Your task to perform on an android device: open app "Mercado Libre" (install if not already installed) Image 0: 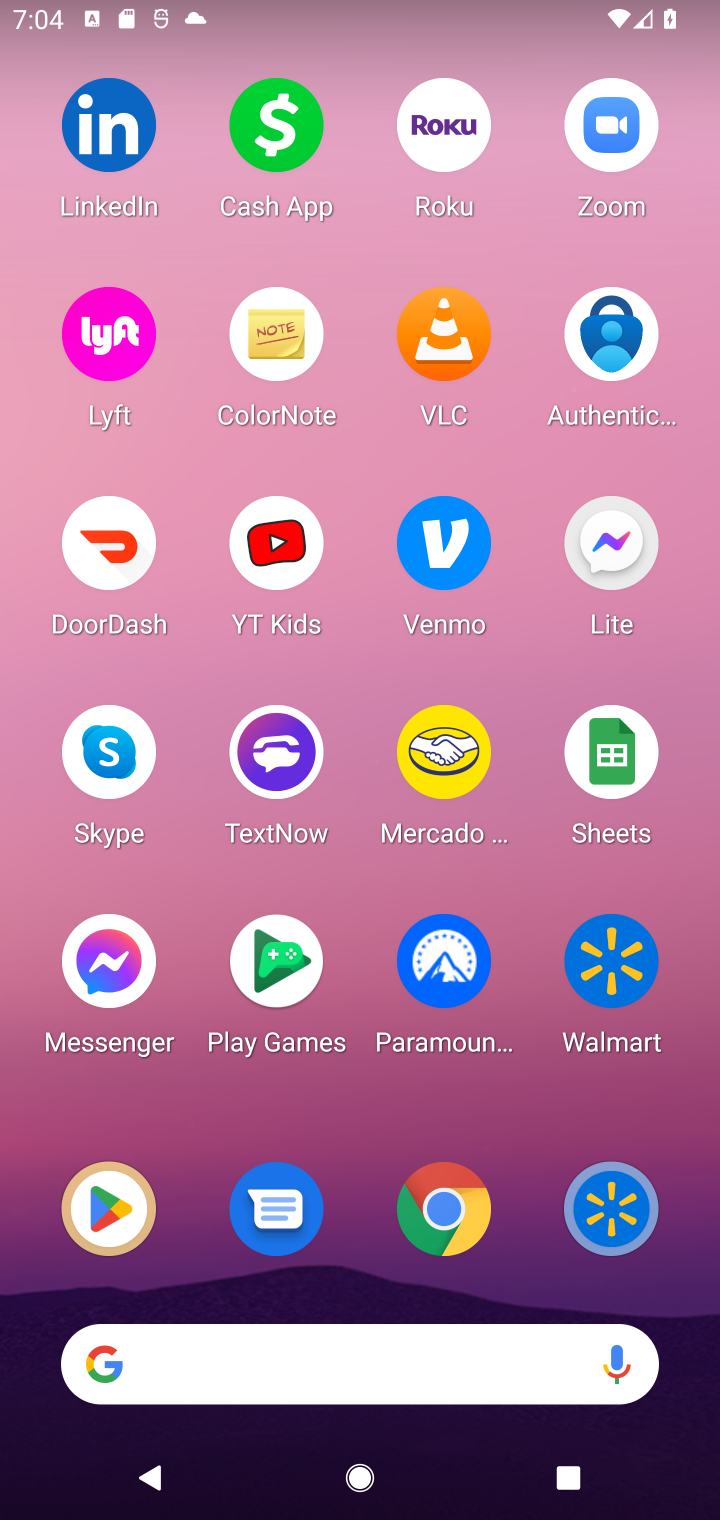
Step 0: click (110, 1199)
Your task to perform on an android device: open app "Mercado Libre" (install if not already installed) Image 1: 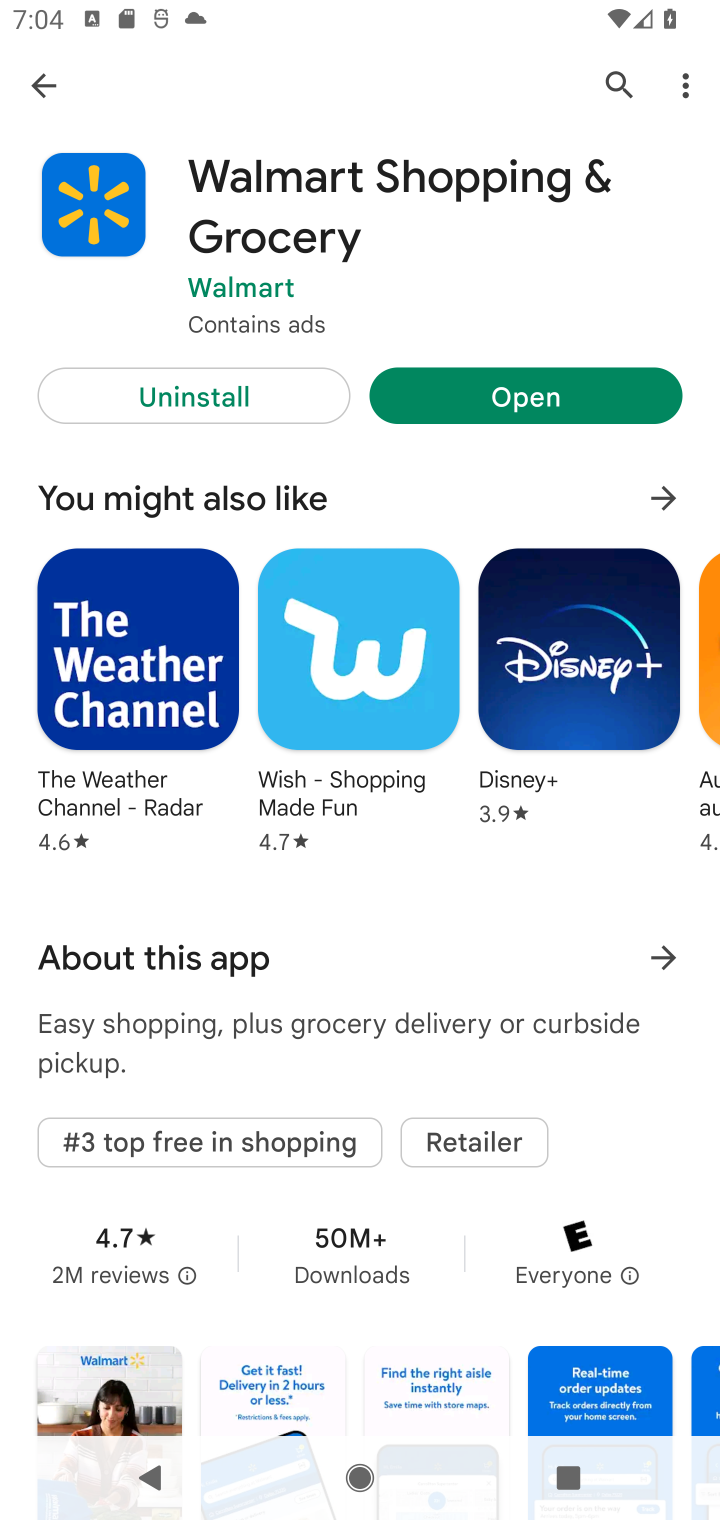
Step 1: click (630, 86)
Your task to perform on an android device: open app "Mercado Libre" (install if not already installed) Image 2: 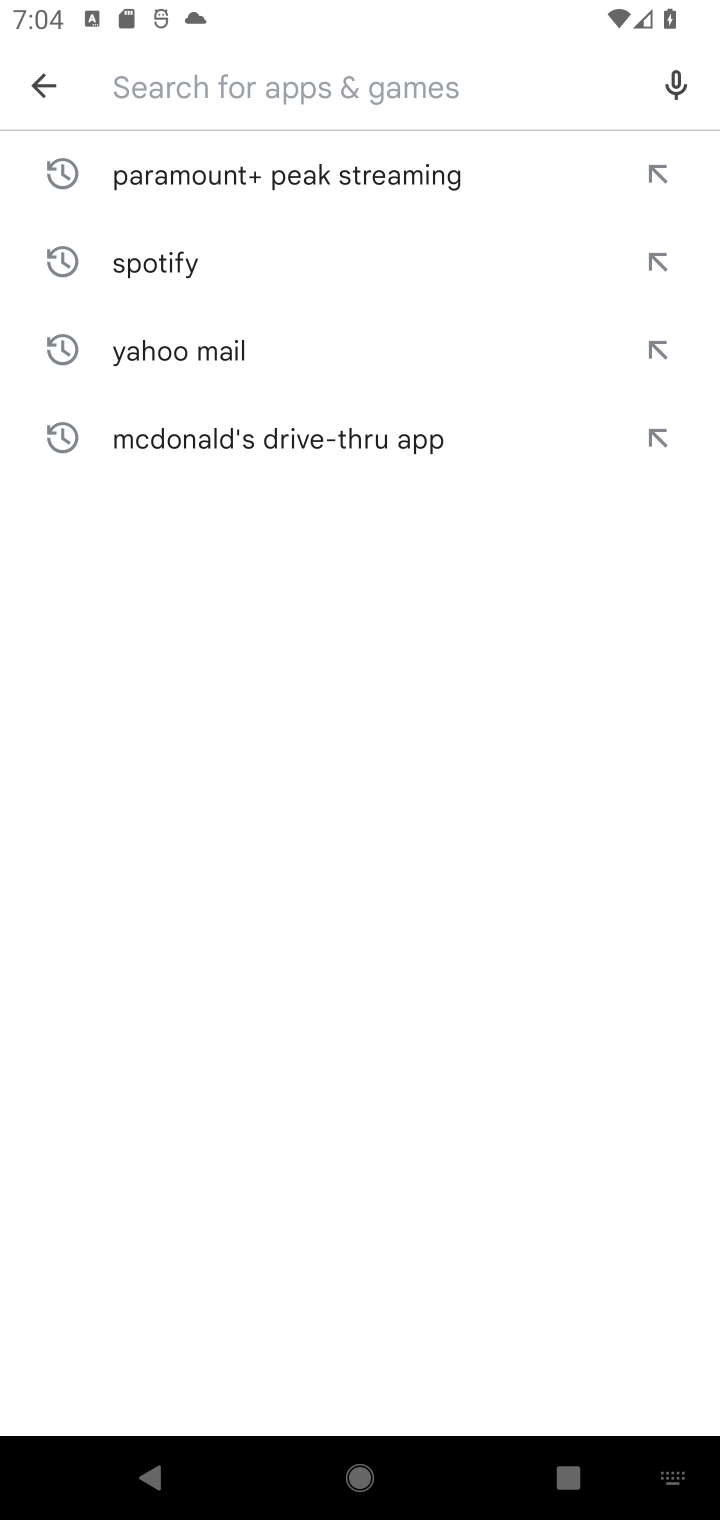
Step 2: type "Mercado Libre"
Your task to perform on an android device: open app "Mercado Libre" (install if not already installed) Image 3: 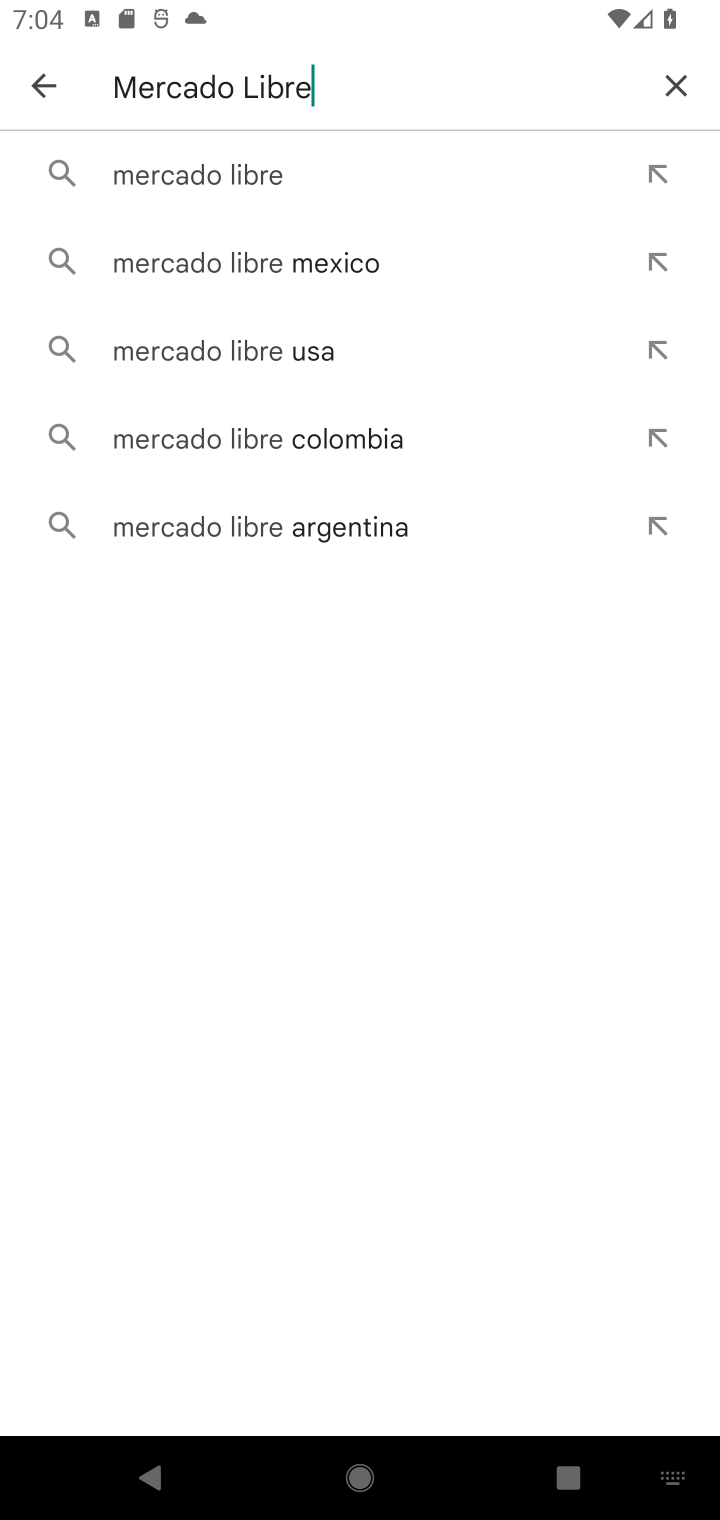
Step 3: click (172, 192)
Your task to perform on an android device: open app "Mercado Libre" (install if not already installed) Image 4: 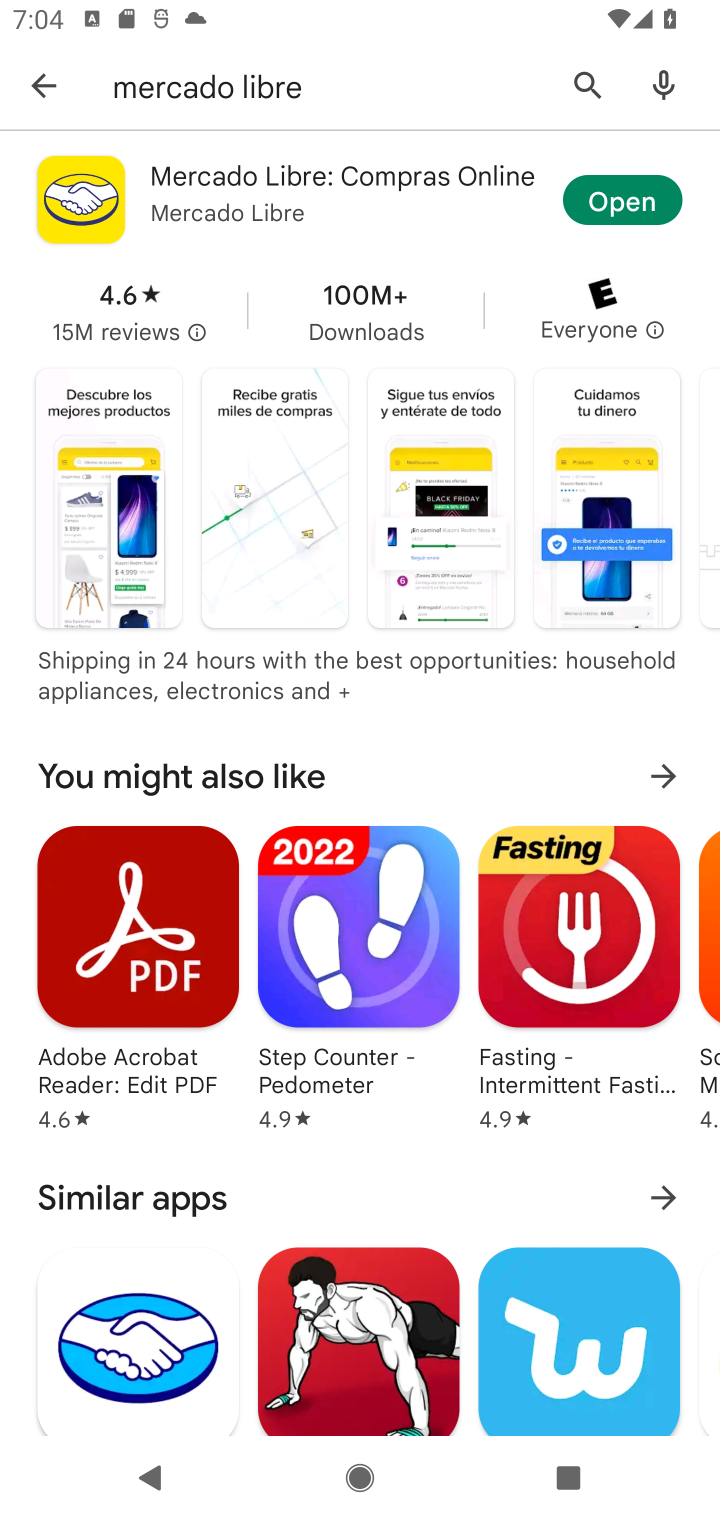
Step 4: click (649, 196)
Your task to perform on an android device: open app "Mercado Libre" (install if not already installed) Image 5: 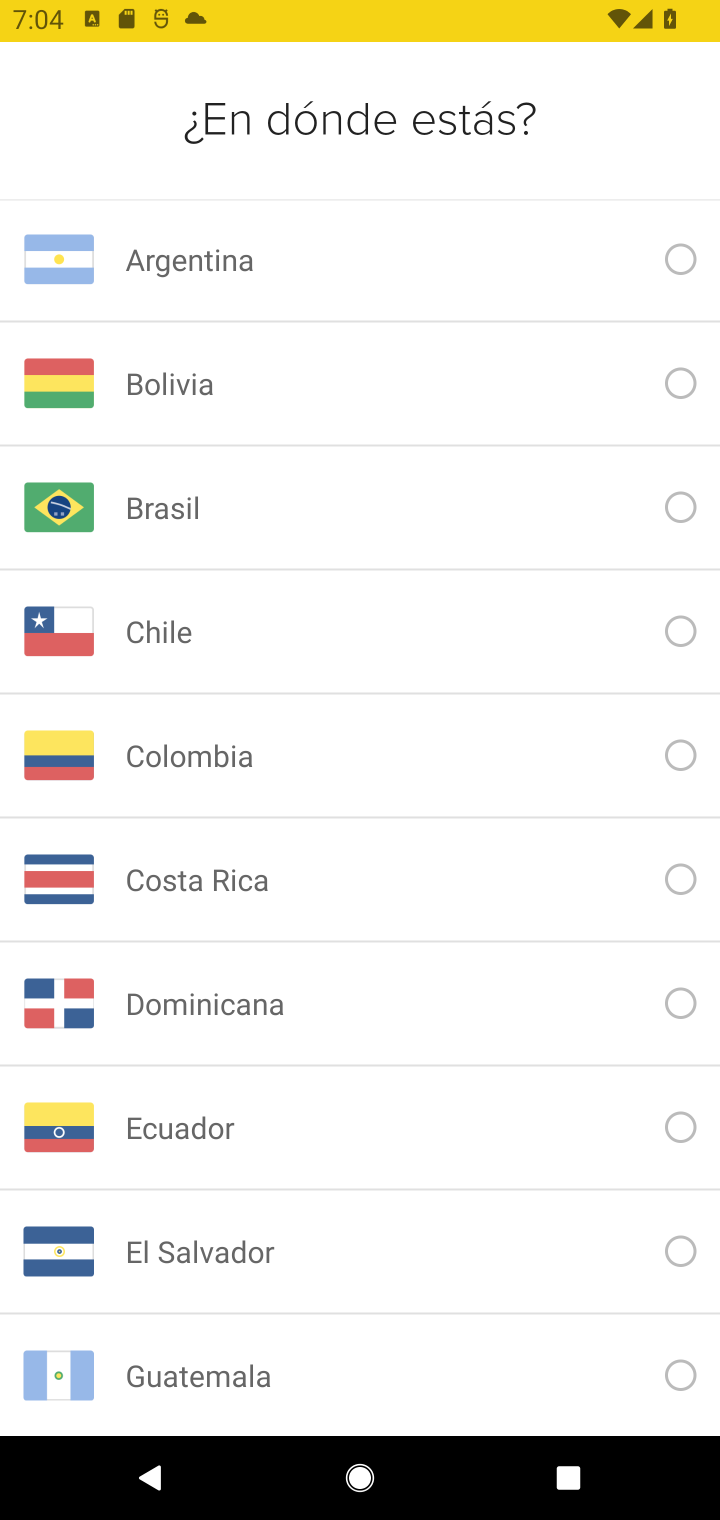
Step 5: task complete